Your task to perform on an android device: Open sound settings Image 0: 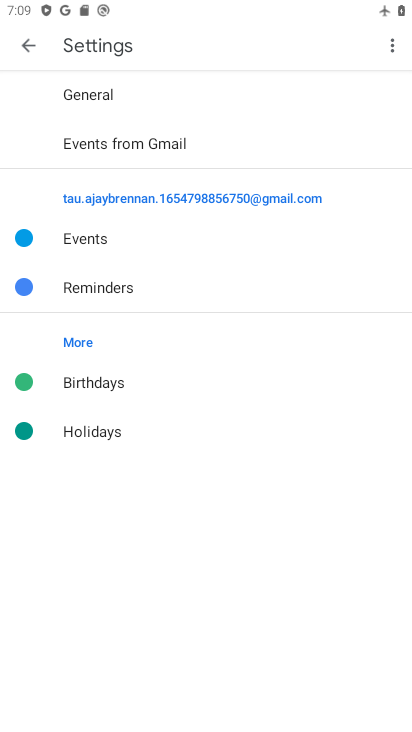
Step 0: press home button
Your task to perform on an android device: Open sound settings Image 1: 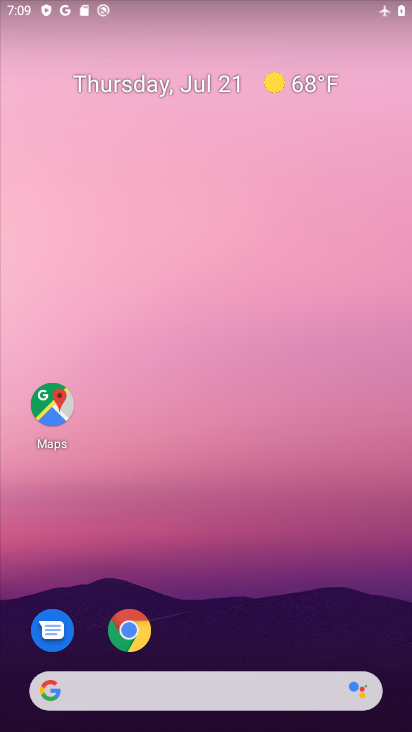
Step 1: drag from (177, 478) to (198, 111)
Your task to perform on an android device: Open sound settings Image 2: 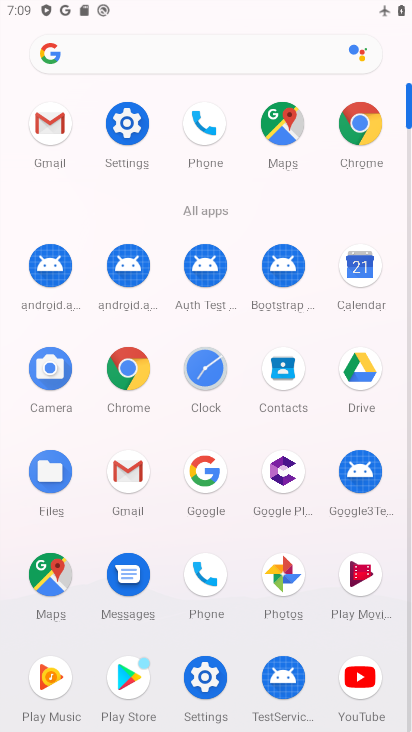
Step 2: click (123, 138)
Your task to perform on an android device: Open sound settings Image 3: 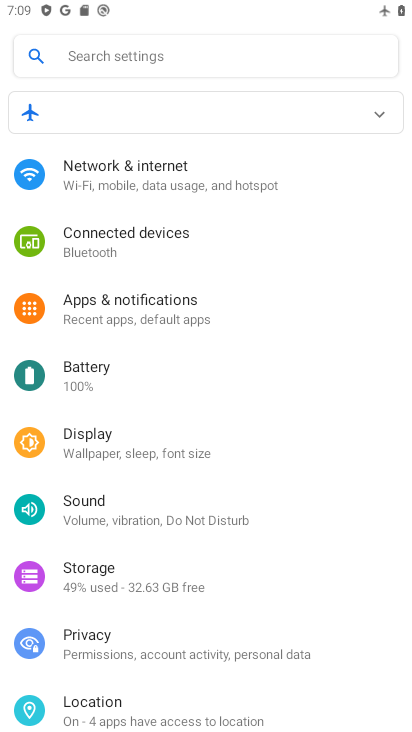
Step 3: click (57, 507)
Your task to perform on an android device: Open sound settings Image 4: 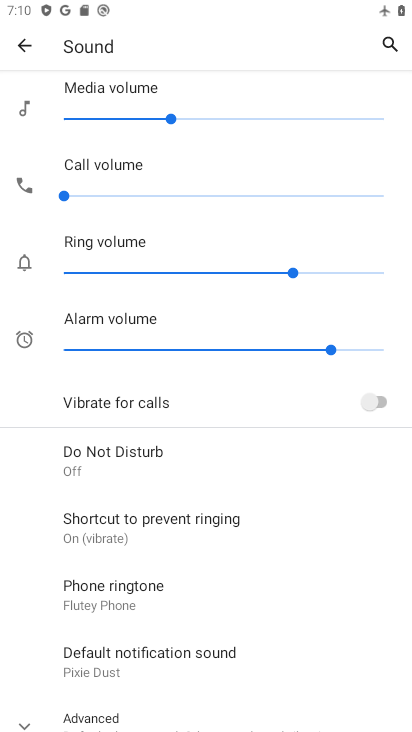
Step 4: task complete